Your task to perform on an android device: turn off priority inbox in the gmail app Image 0: 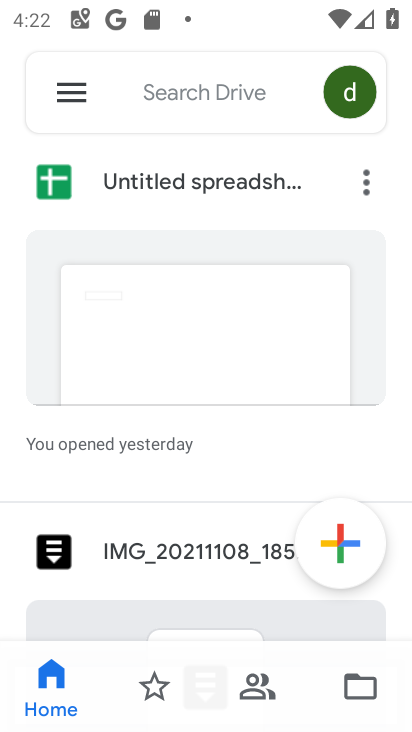
Step 0: press home button
Your task to perform on an android device: turn off priority inbox in the gmail app Image 1: 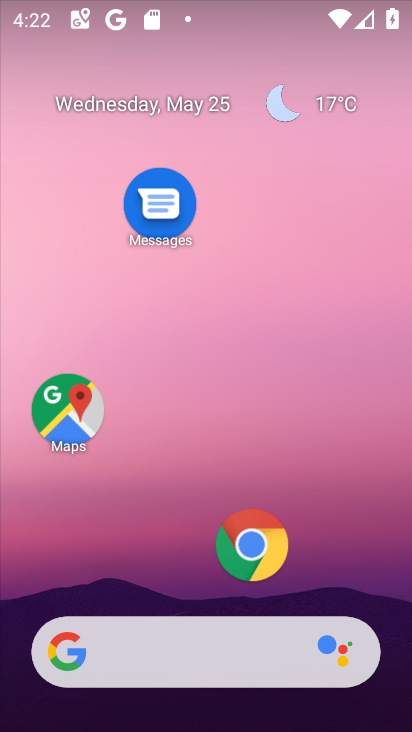
Step 1: drag from (322, 528) to (315, 47)
Your task to perform on an android device: turn off priority inbox in the gmail app Image 2: 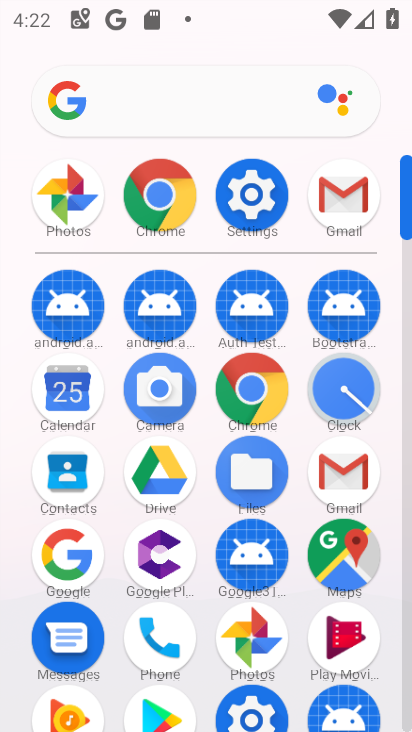
Step 2: click (331, 213)
Your task to perform on an android device: turn off priority inbox in the gmail app Image 3: 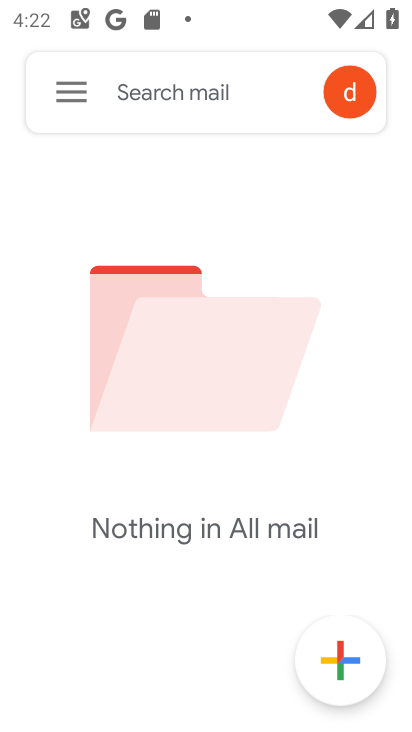
Step 3: click (73, 101)
Your task to perform on an android device: turn off priority inbox in the gmail app Image 4: 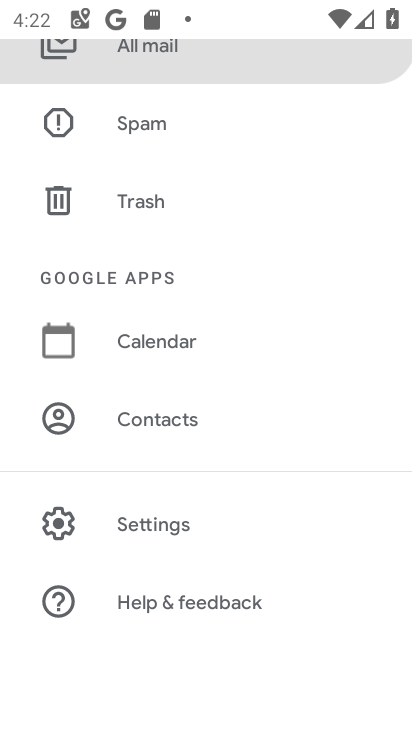
Step 4: click (152, 533)
Your task to perform on an android device: turn off priority inbox in the gmail app Image 5: 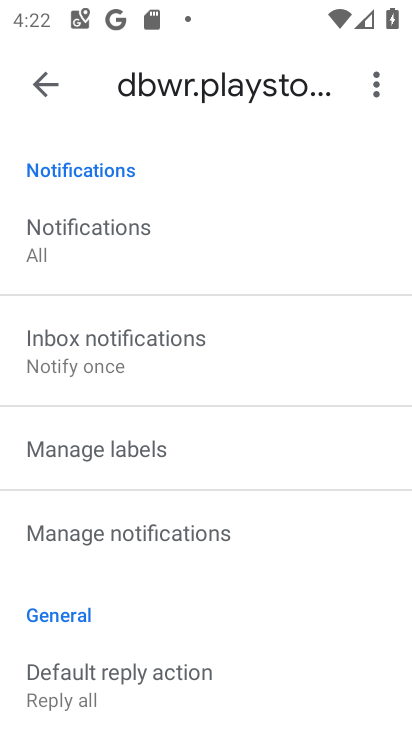
Step 5: drag from (297, 236) to (289, 608)
Your task to perform on an android device: turn off priority inbox in the gmail app Image 6: 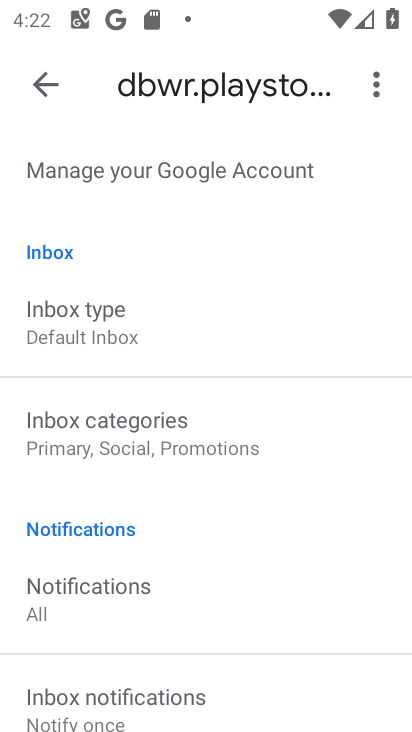
Step 6: click (90, 323)
Your task to perform on an android device: turn off priority inbox in the gmail app Image 7: 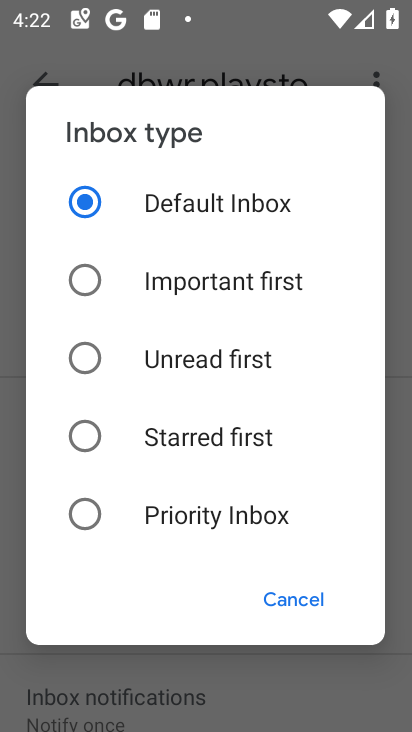
Step 7: click (195, 197)
Your task to perform on an android device: turn off priority inbox in the gmail app Image 8: 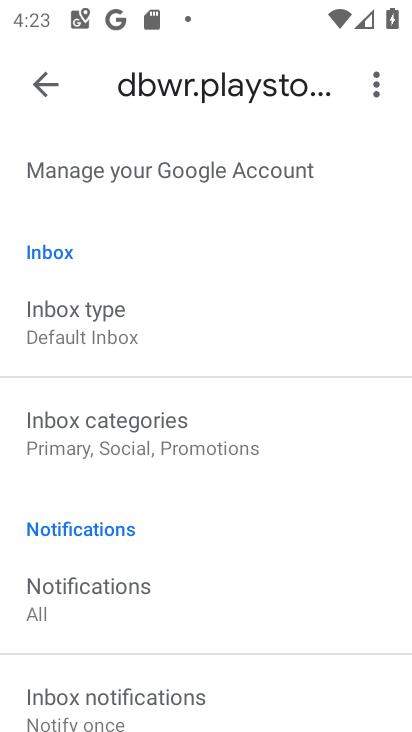
Step 8: task complete